Your task to perform on an android device: delete browsing data in the chrome app Image 0: 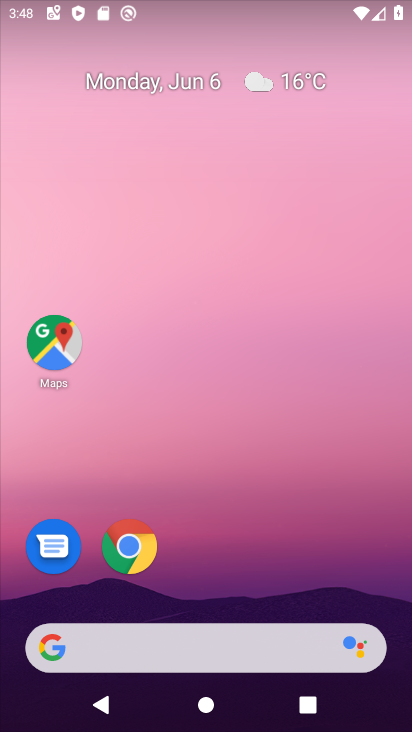
Step 0: drag from (294, 559) to (343, 73)
Your task to perform on an android device: delete browsing data in the chrome app Image 1: 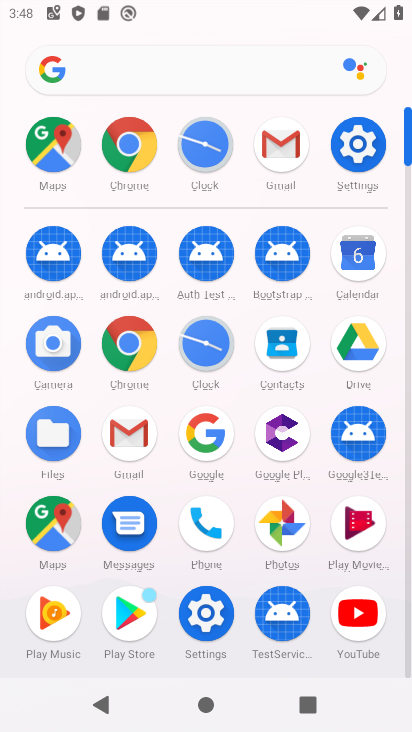
Step 1: click (100, 165)
Your task to perform on an android device: delete browsing data in the chrome app Image 2: 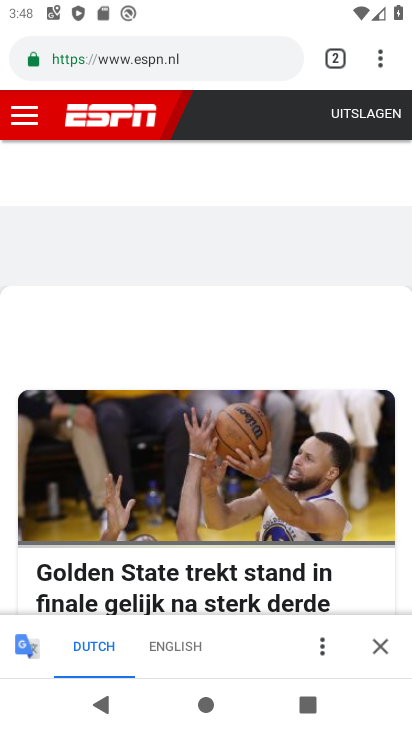
Step 2: drag from (383, 62) to (264, 309)
Your task to perform on an android device: delete browsing data in the chrome app Image 3: 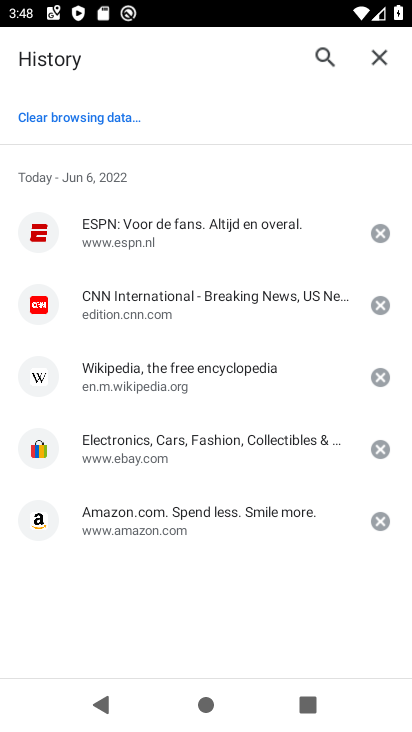
Step 3: click (103, 127)
Your task to perform on an android device: delete browsing data in the chrome app Image 4: 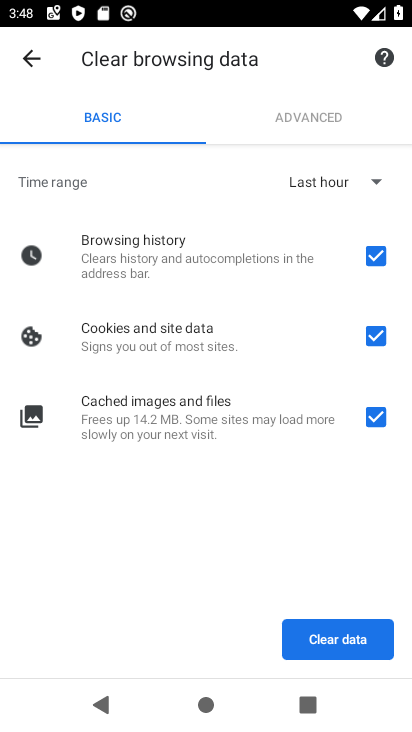
Step 4: click (341, 641)
Your task to perform on an android device: delete browsing data in the chrome app Image 5: 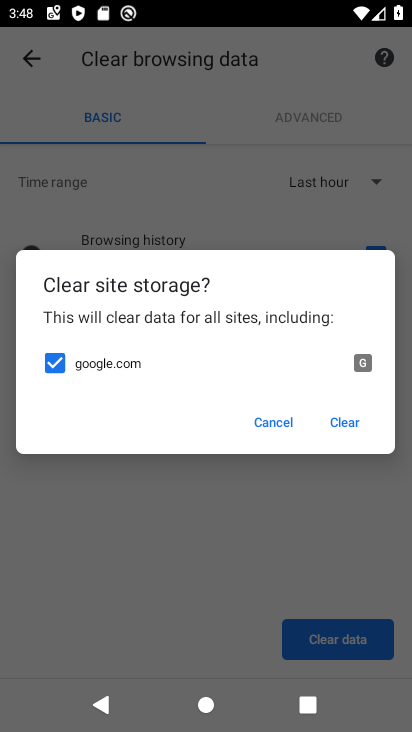
Step 5: click (352, 431)
Your task to perform on an android device: delete browsing data in the chrome app Image 6: 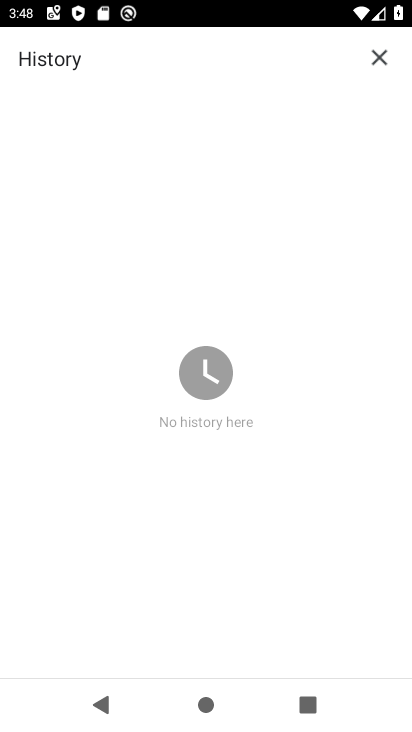
Step 6: task complete